Your task to perform on an android device: open app "Walmart Shopping & Grocery" (install if not already installed), go to login, and select forgot password Image 0: 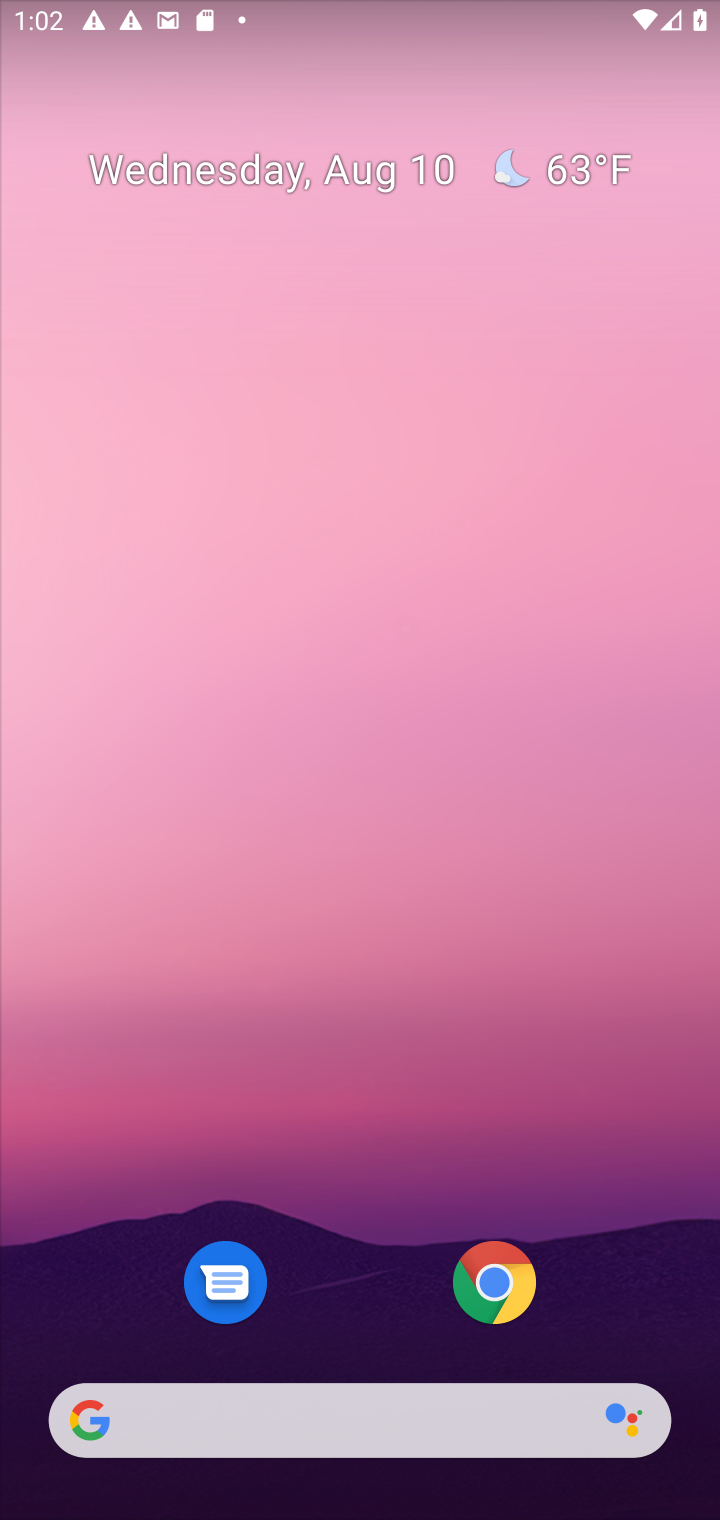
Step 0: drag from (305, 1312) to (259, 422)
Your task to perform on an android device: open app "Walmart Shopping & Grocery" (install if not already installed), go to login, and select forgot password Image 1: 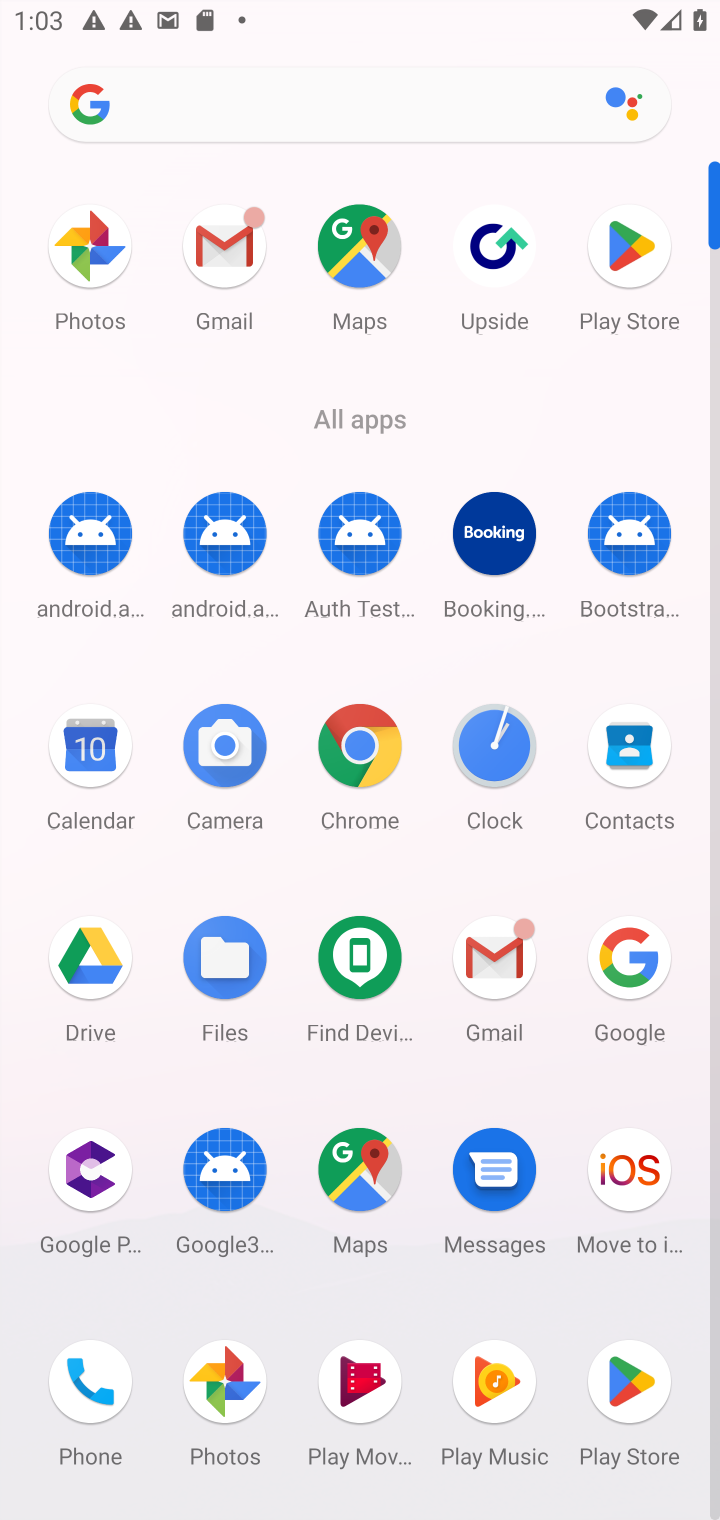
Step 1: click (655, 237)
Your task to perform on an android device: open app "Walmart Shopping & Grocery" (install if not already installed), go to login, and select forgot password Image 2: 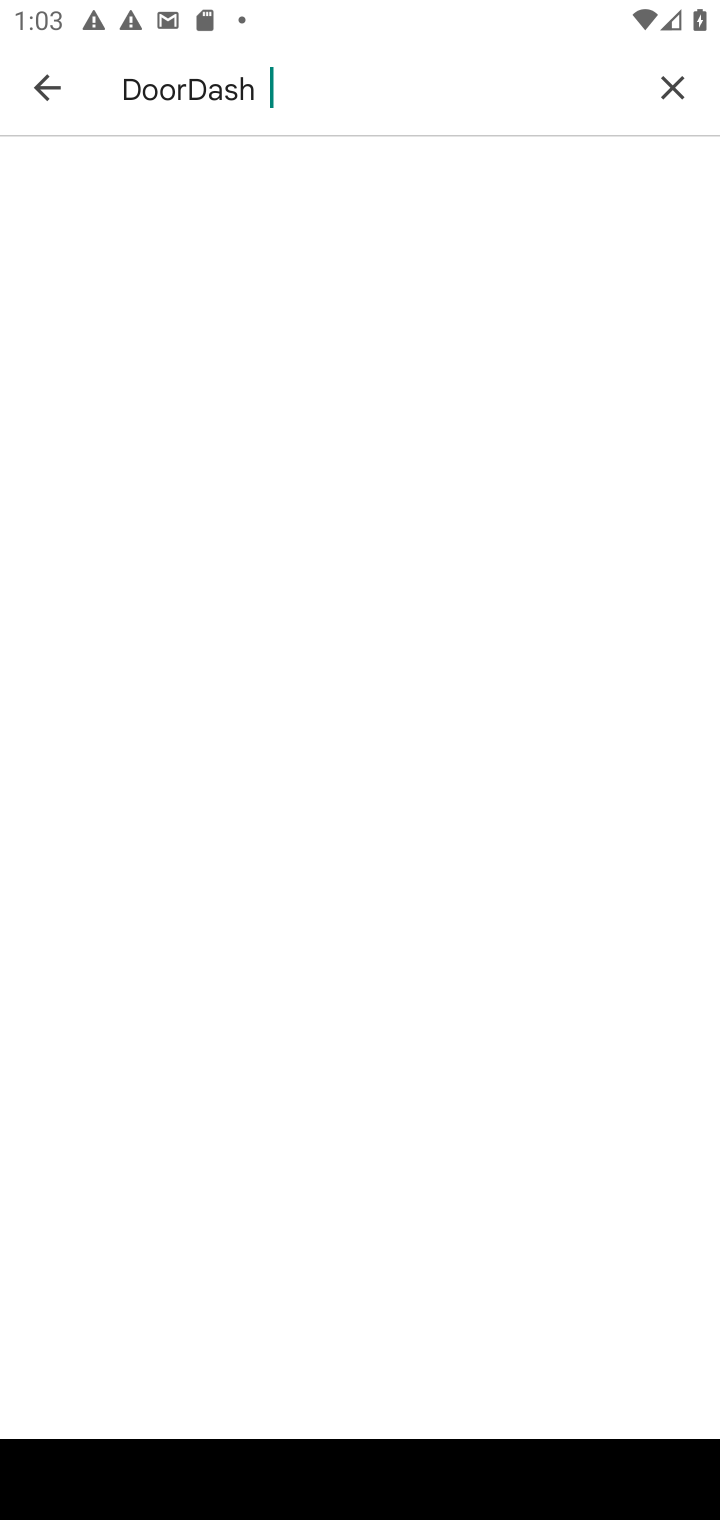
Step 2: click (647, 237)
Your task to perform on an android device: open app "Walmart Shopping & Grocery" (install if not already installed), go to login, and select forgot password Image 3: 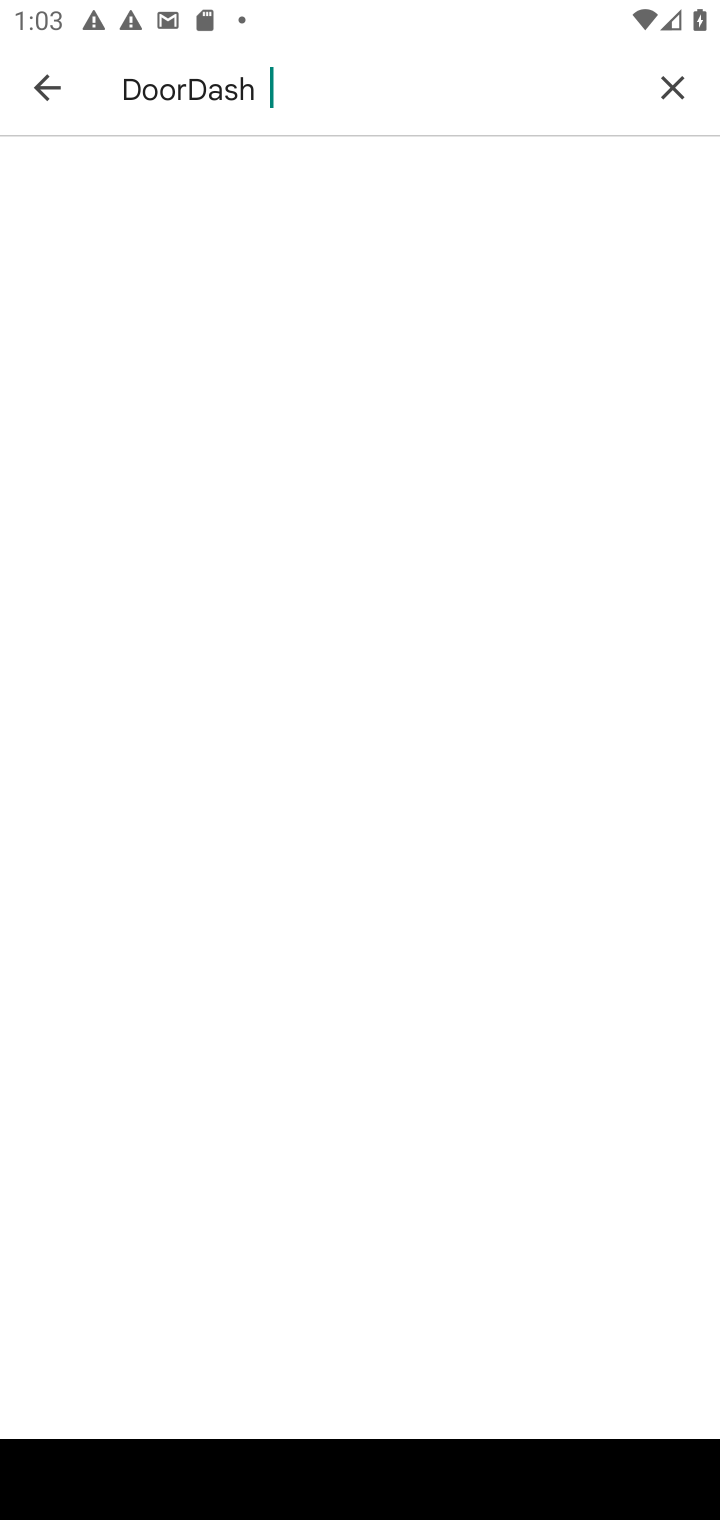
Step 3: click (647, 89)
Your task to perform on an android device: open app "Walmart Shopping & Grocery" (install if not already installed), go to login, and select forgot password Image 4: 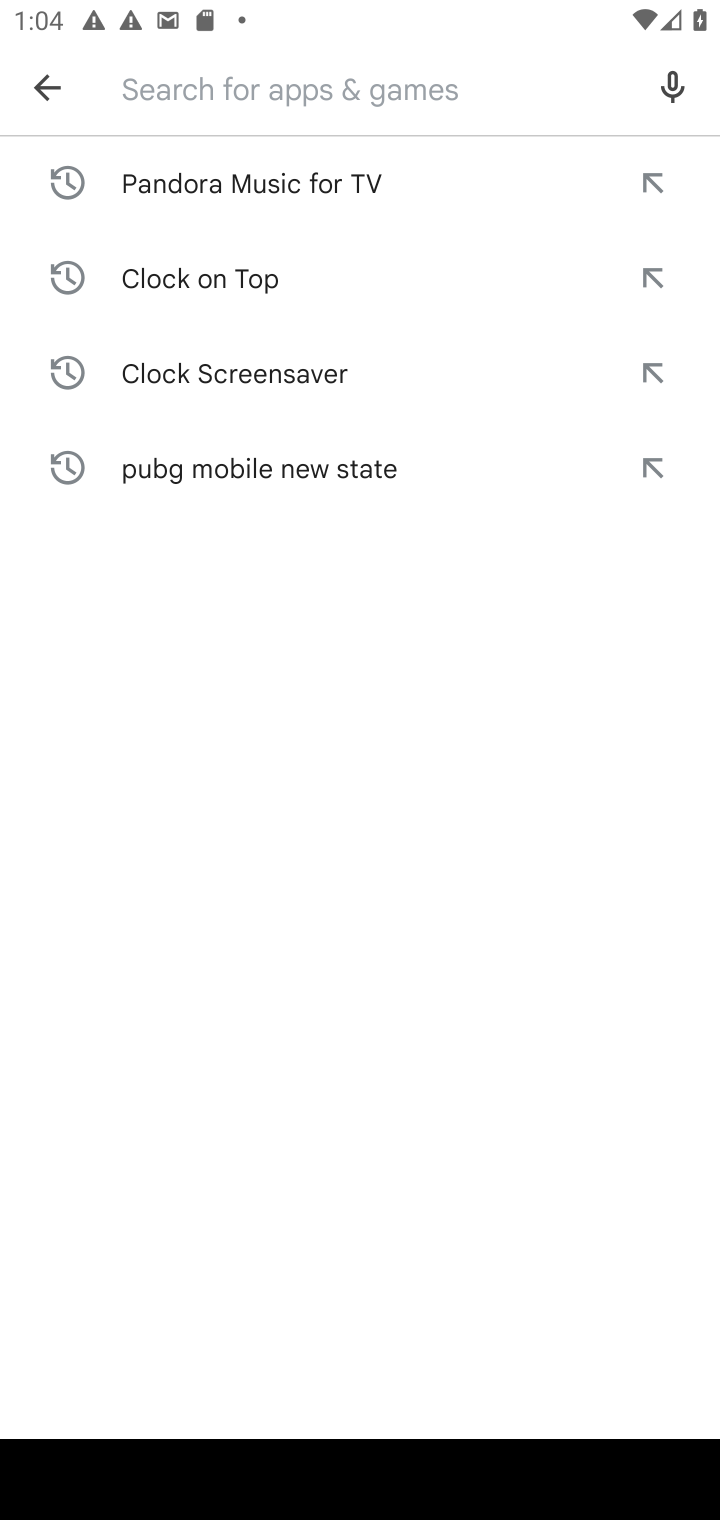
Step 4: click (362, 90)
Your task to perform on an android device: open app "Walmart Shopping & Grocery" (install if not already installed), go to login, and select forgot password Image 5: 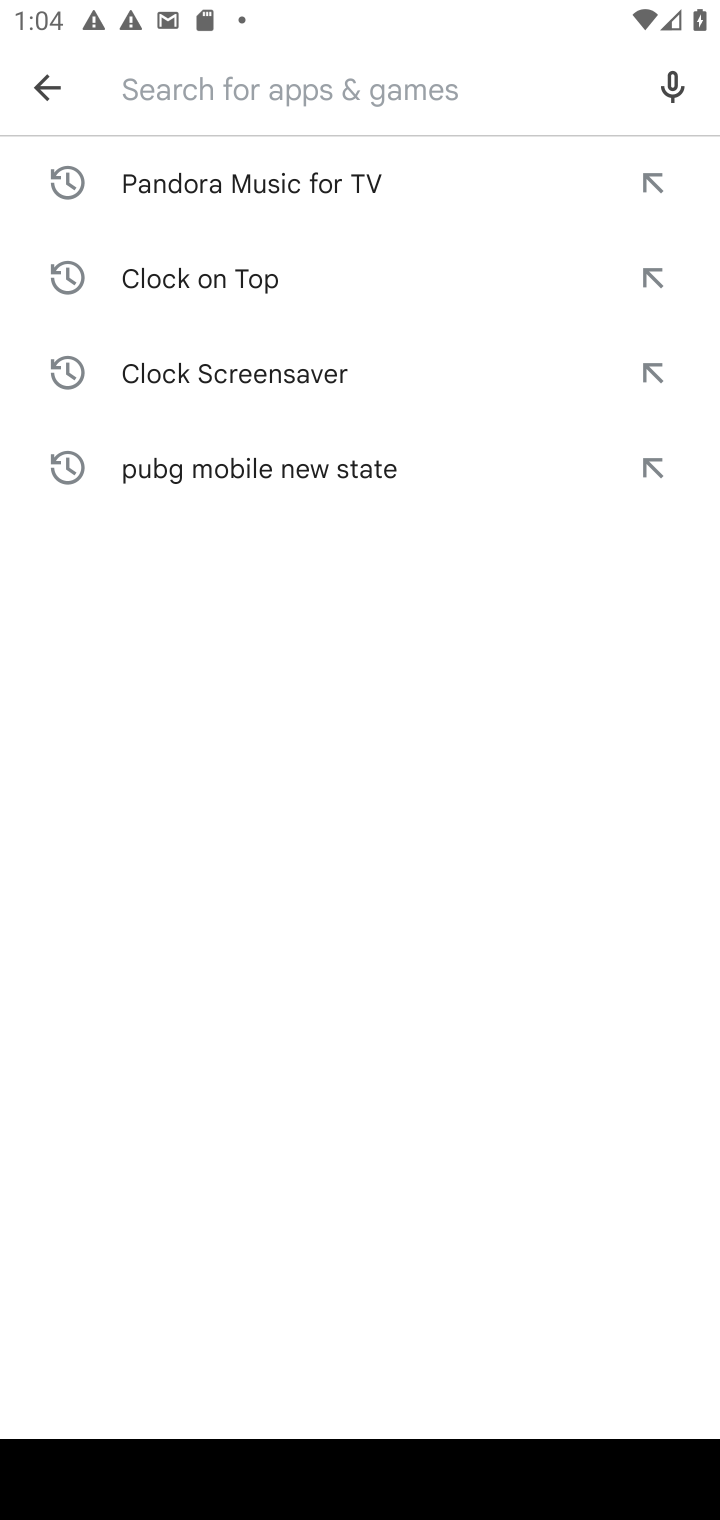
Step 5: type "Walmart Shopping & Grocery "
Your task to perform on an android device: open app "Walmart Shopping & Grocery" (install if not already installed), go to login, and select forgot password Image 6: 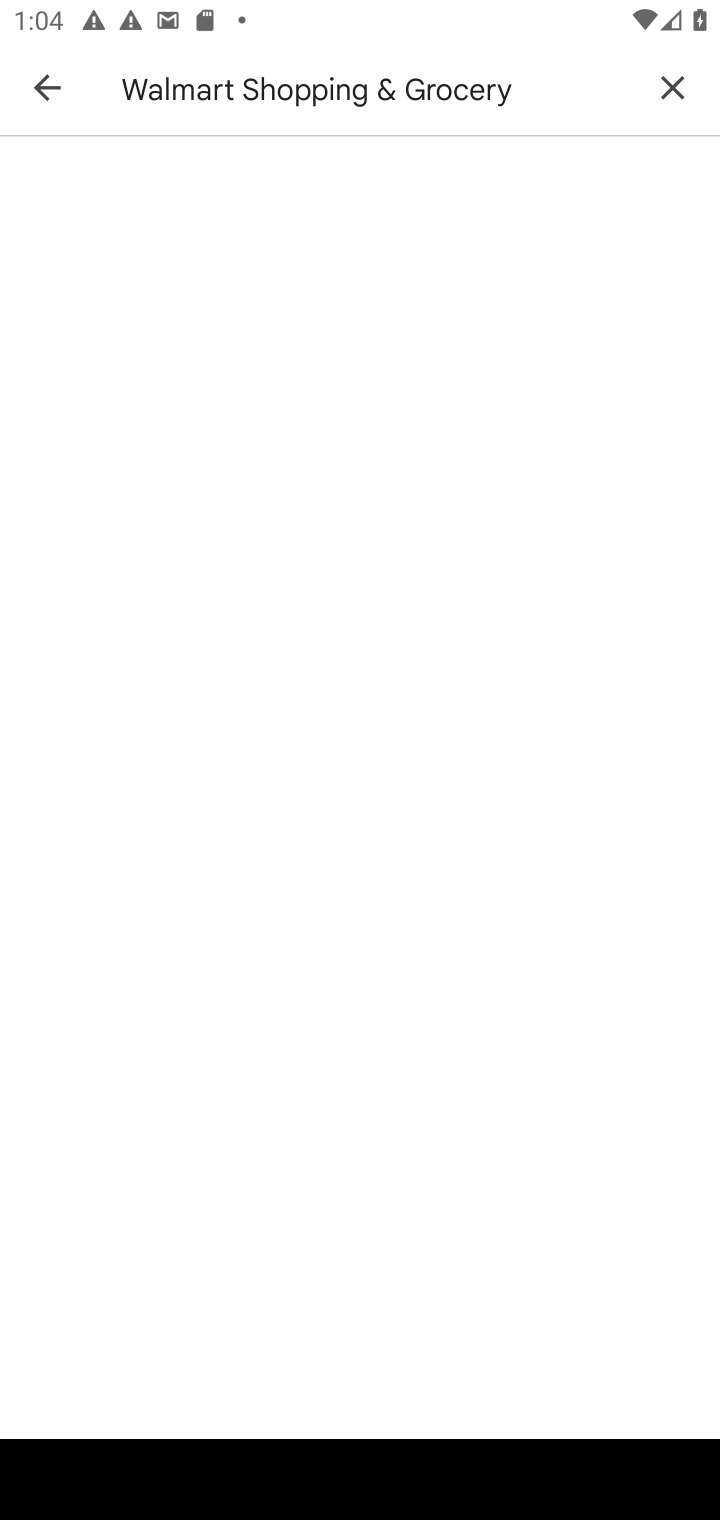
Step 6: click (60, 117)
Your task to perform on an android device: open app "Walmart Shopping & Grocery" (install if not already installed), go to login, and select forgot password Image 7: 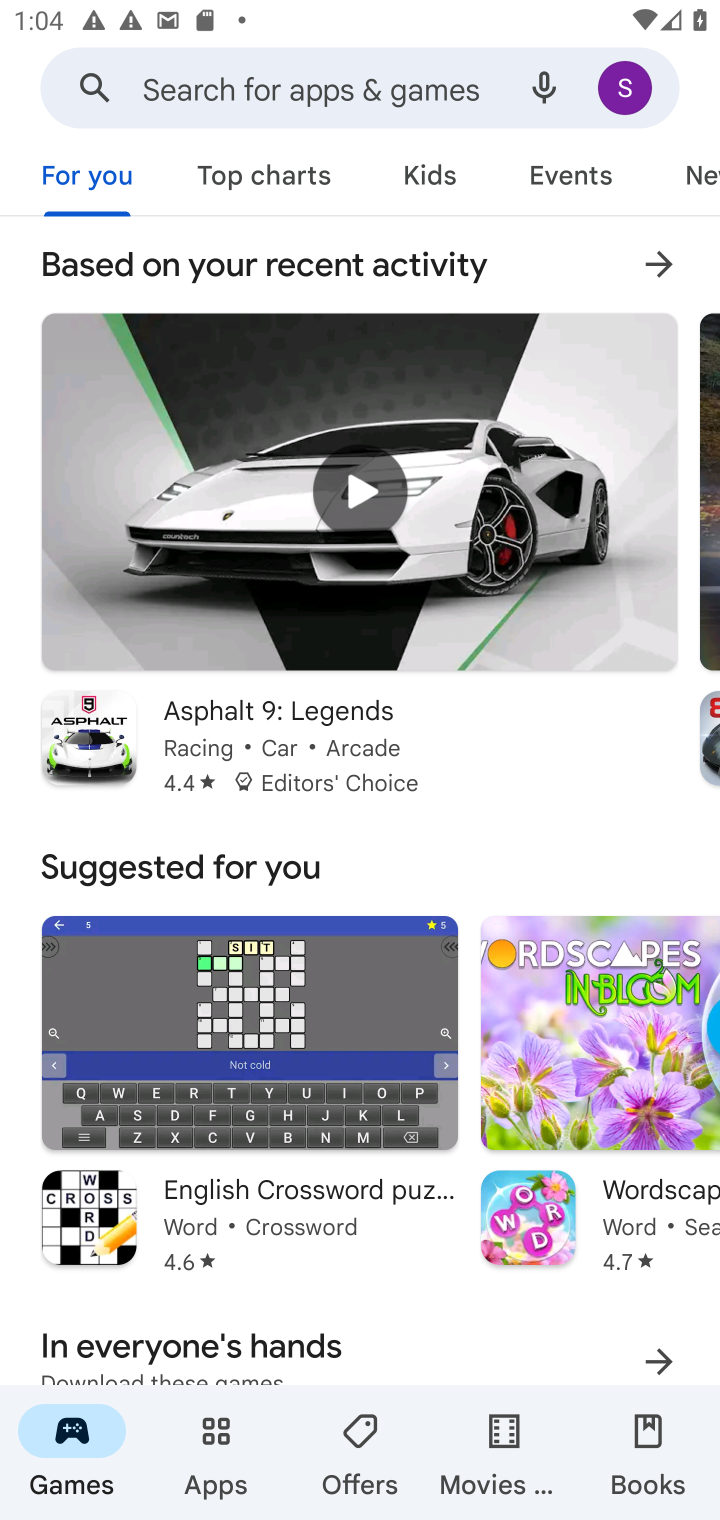
Step 7: click (218, 1405)
Your task to perform on an android device: open app "Walmart Shopping & Grocery" (install if not already installed), go to login, and select forgot password Image 8: 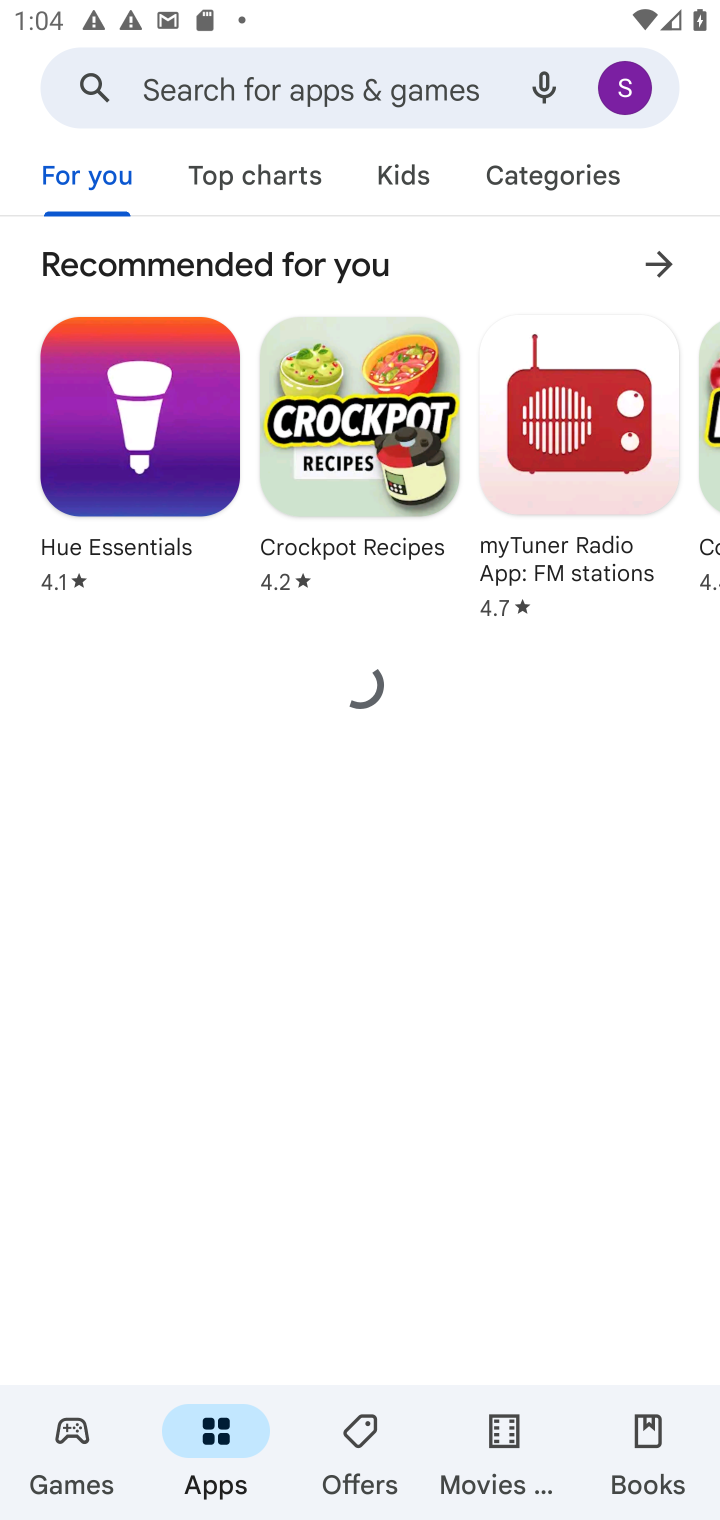
Step 8: click (336, 85)
Your task to perform on an android device: open app "Walmart Shopping & Grocery" (install if not already installed), go to login, and select forgot password Image 9: 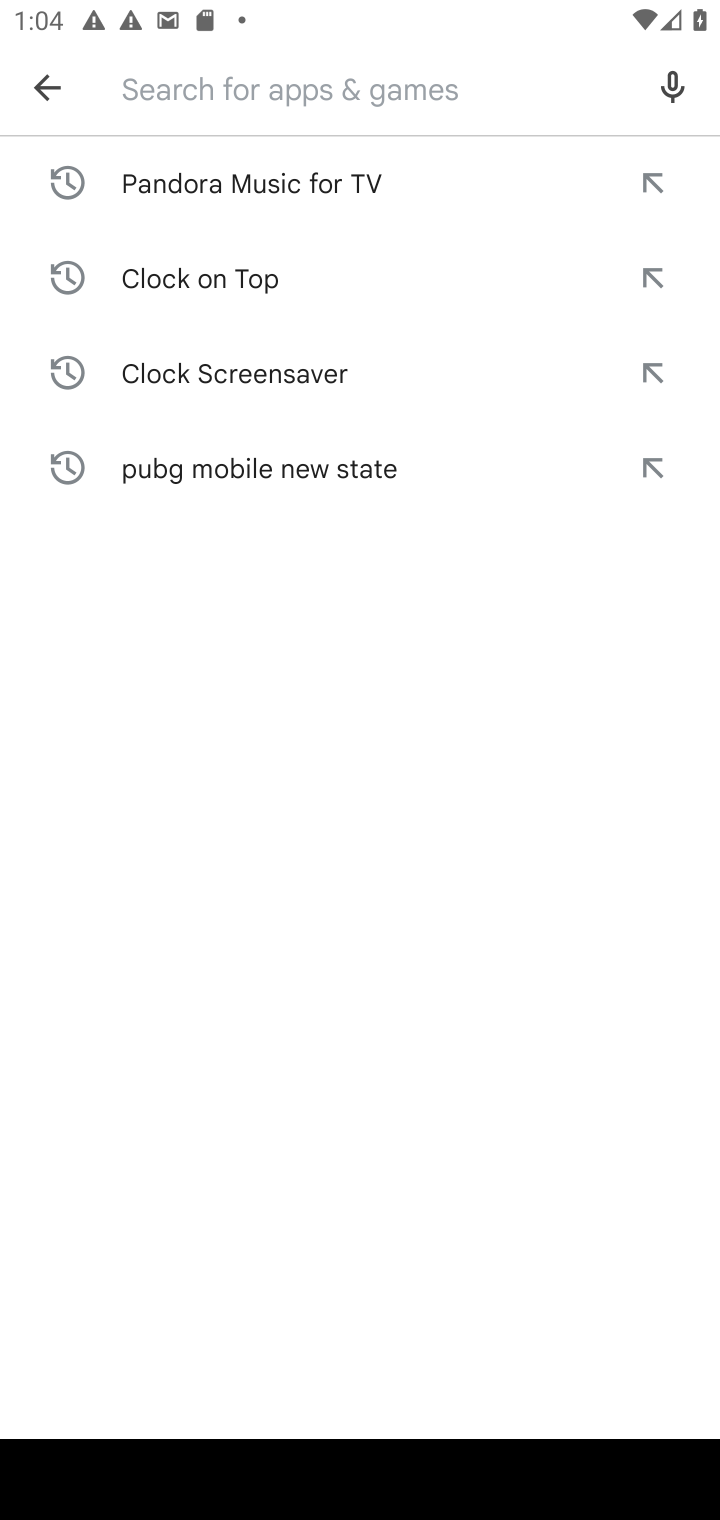
Step 9: type "Walmart Shopping & Grocery "
Your task to perform on an android device: open app "Walmart Shopping & Grocery" (install if not already installed), go to login, and select forgot password Image 10: 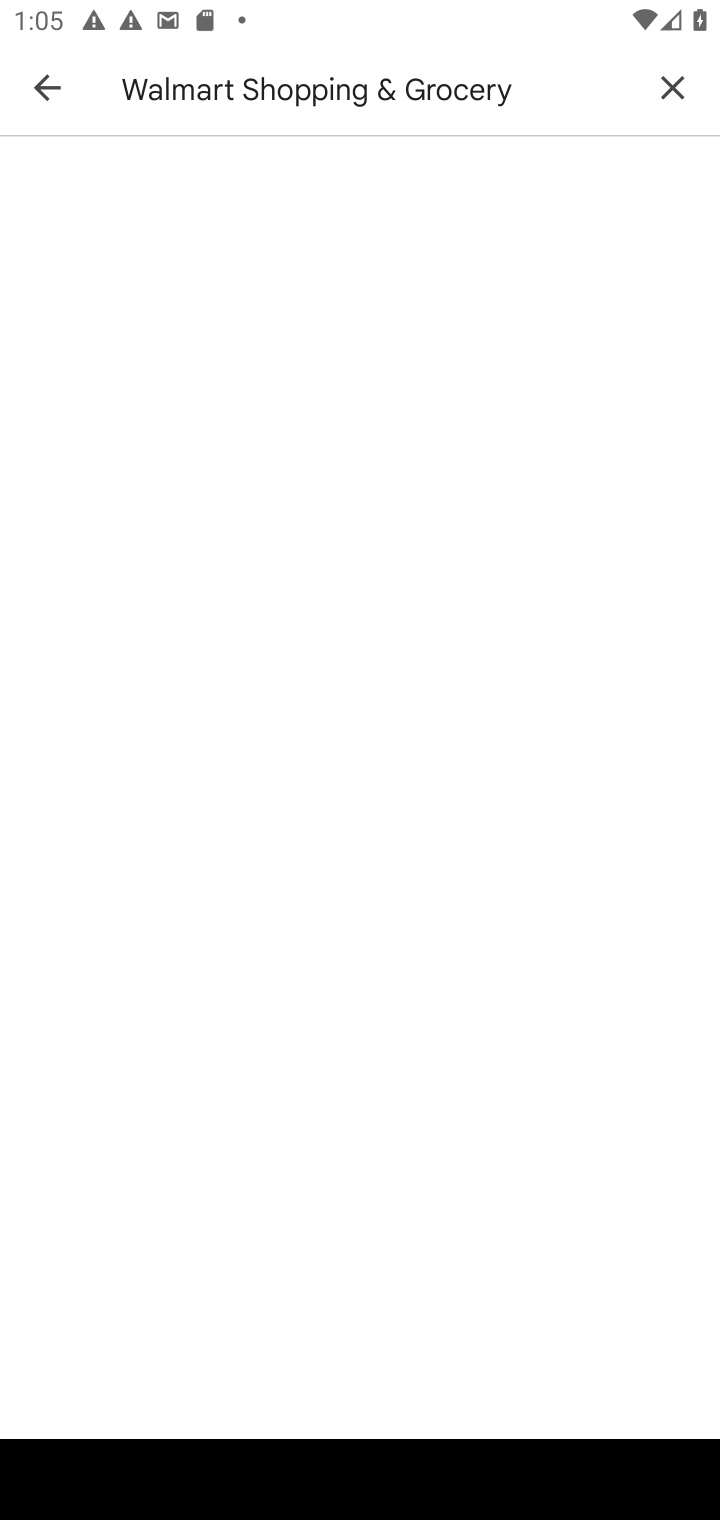
Step 10: click (79, 93)
Your task to perform on an android device: open app "Walmart Shopping & Grocery" (install if not already installed), go to login, and select forgot password Image 11: 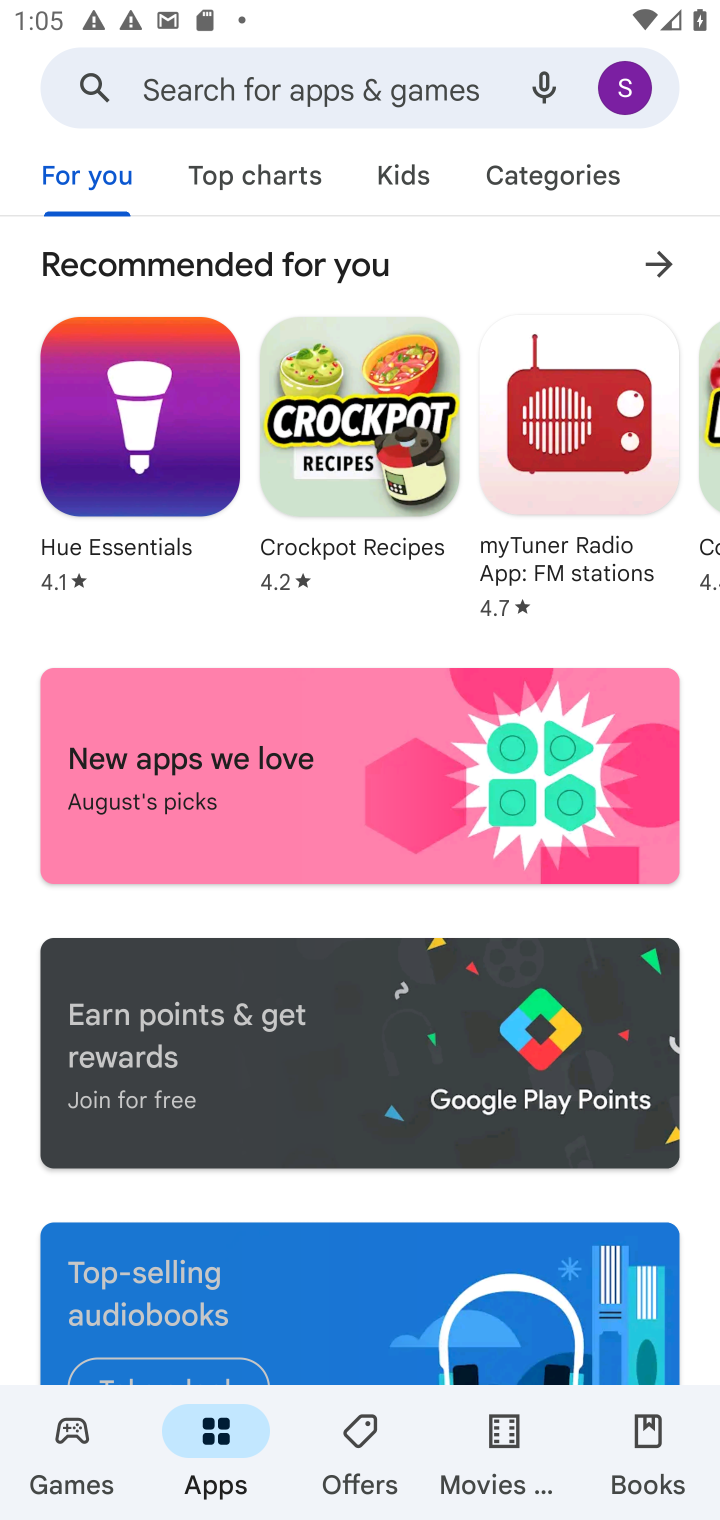
Step 11: press home button
Your task to perform on an android device: open app "Walmart Shopping & Grocery" (install if not already installed), go to login, and select forgot password Image 12: 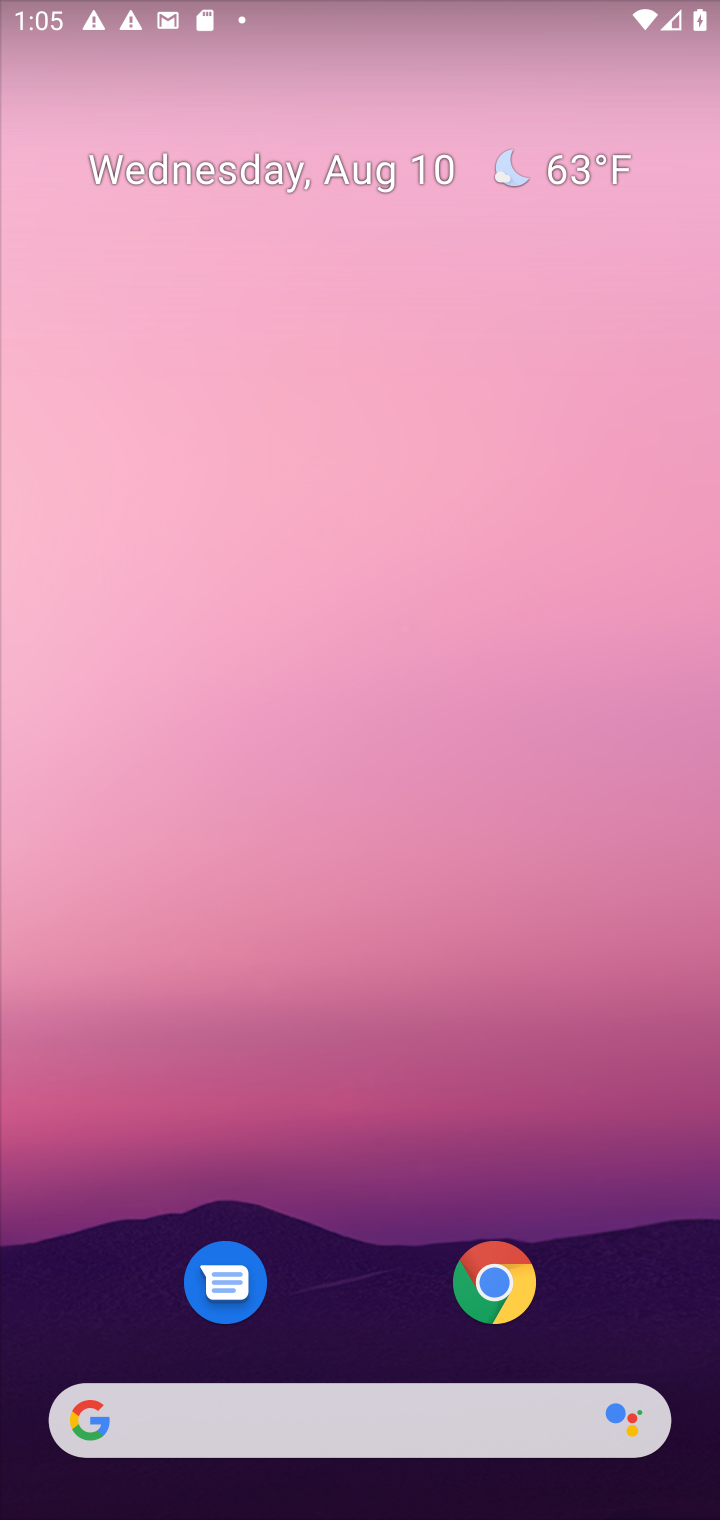
Step 12: drag from (322, 1213) to (468, 265)
Your task to perform on an android device: open app "Walmart Shopping & Grocery" (install if not already installed), go to login, and select forgot password Image 13: 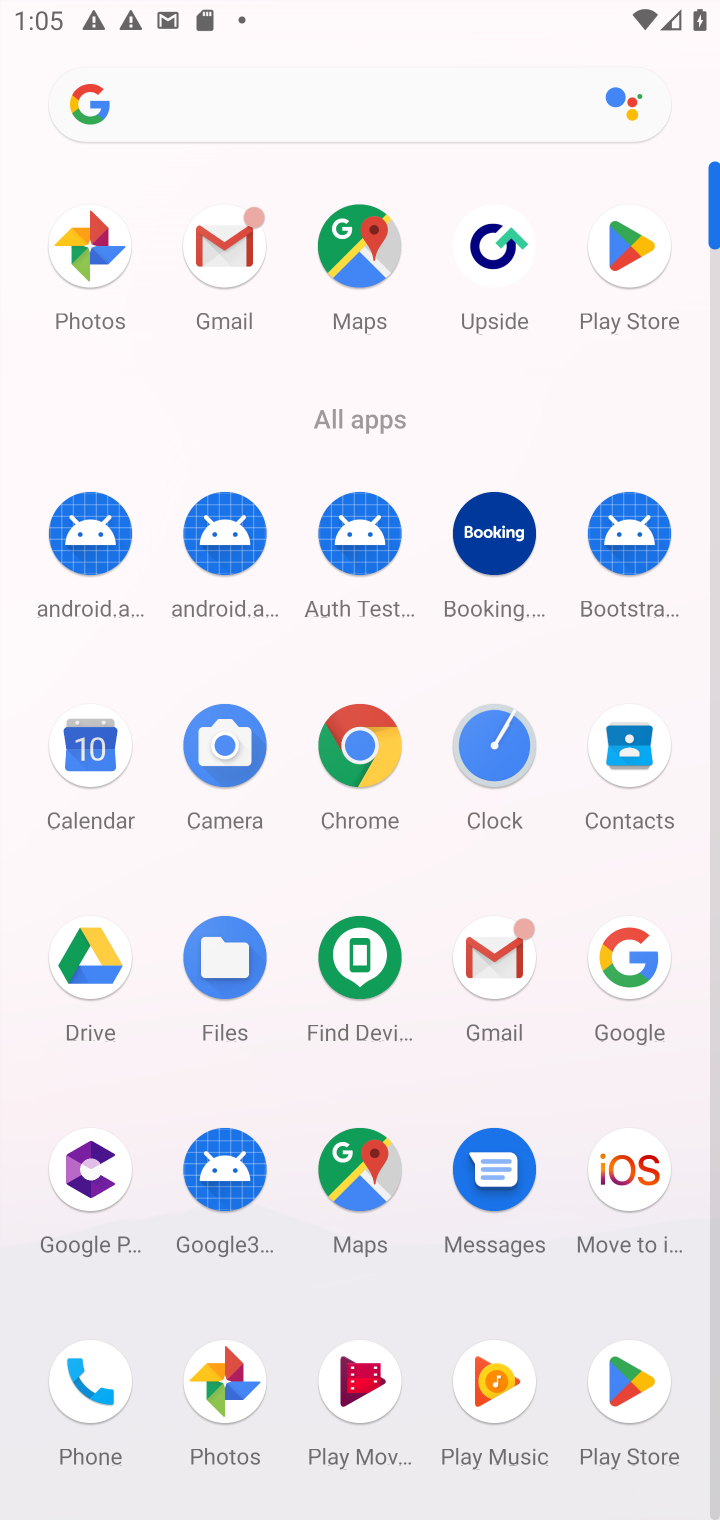
Step 13: click (656, 234)
Your task to perform on an android device: open app "Walmart Shopping & Grocery" (install if not already installed), go to login, and select forgot password Image 14: 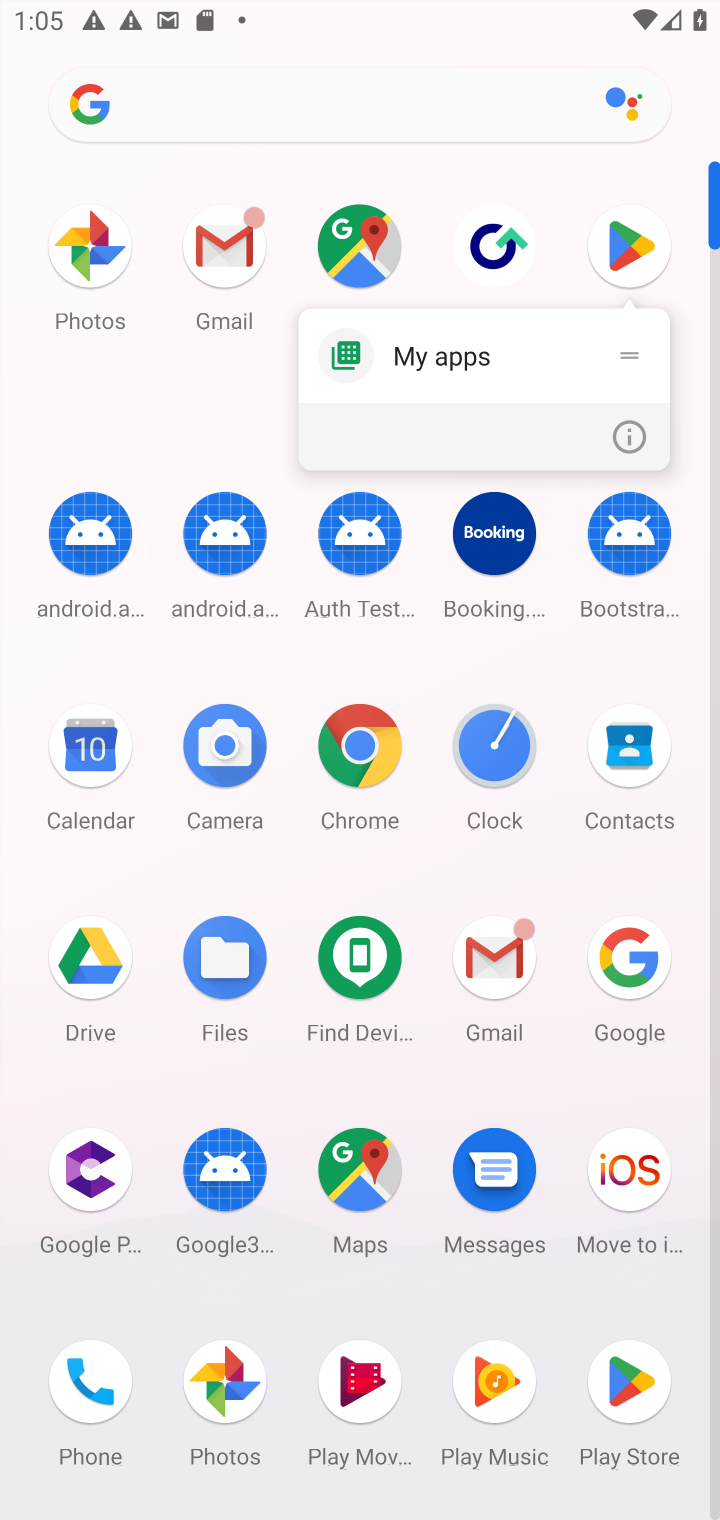
Step 14: click (613, 235)
Your task to perform on an android device: open app "Walmart Shopping & Grocery" (install if not already installed), go to login, and select forgot password Image 15: 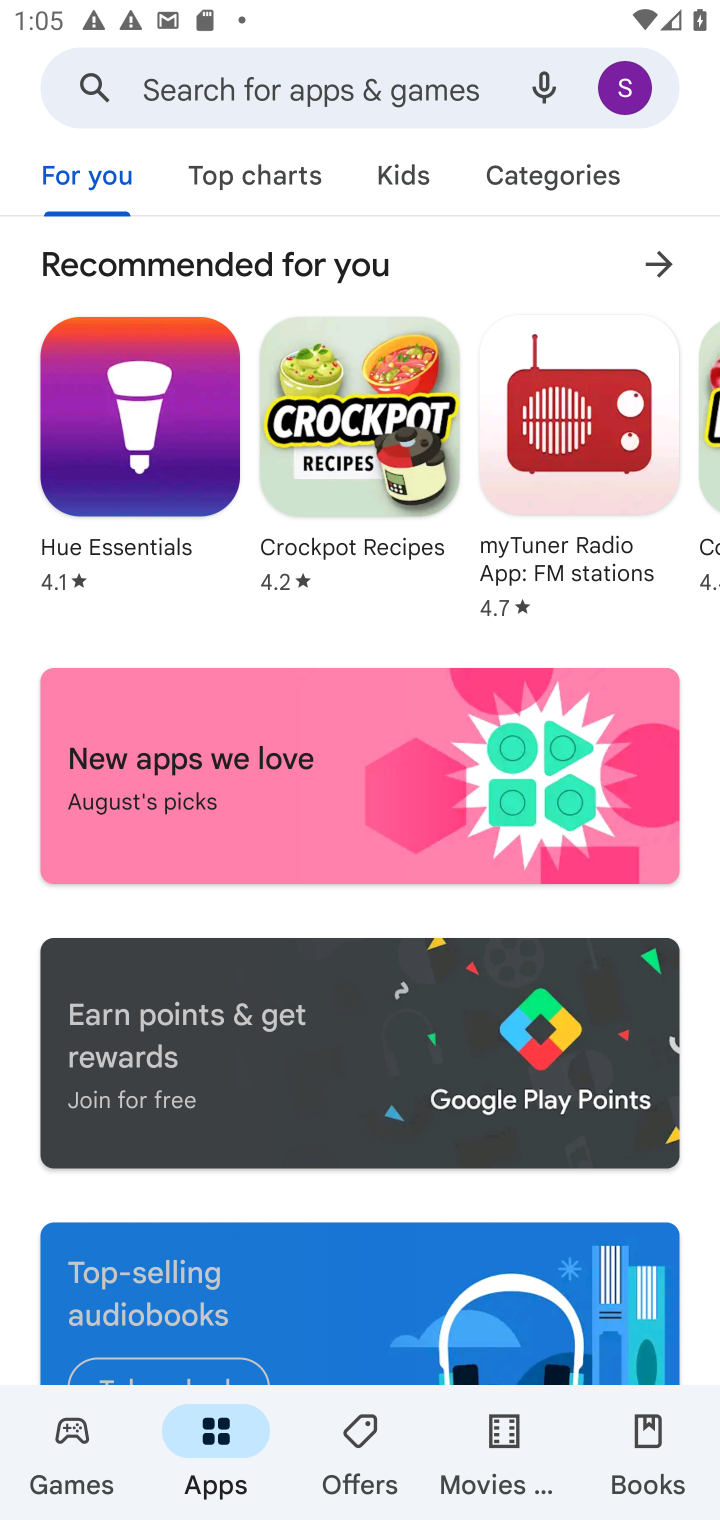
Step 15: click (214, 77)
Your task to perform on an android device: open app "Walmart Shopping & Grocery" (install if not already installed), go to login, and select forgot password Image 16: 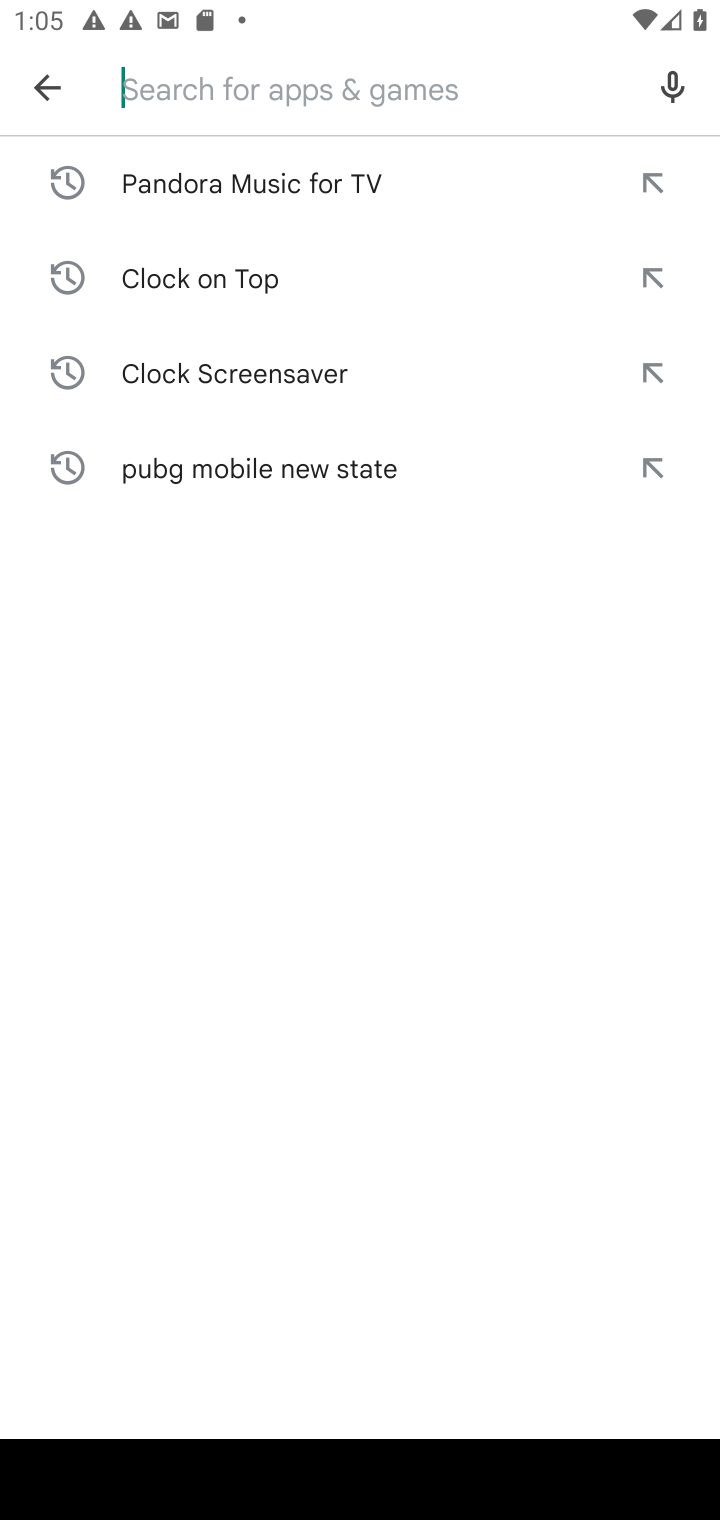
Step 16: click (79, 74)
Your task to perform on an android device: open app "Walmart Shopping & Grocery" (install if not already installed), go to login, and select forgot password Image 17: 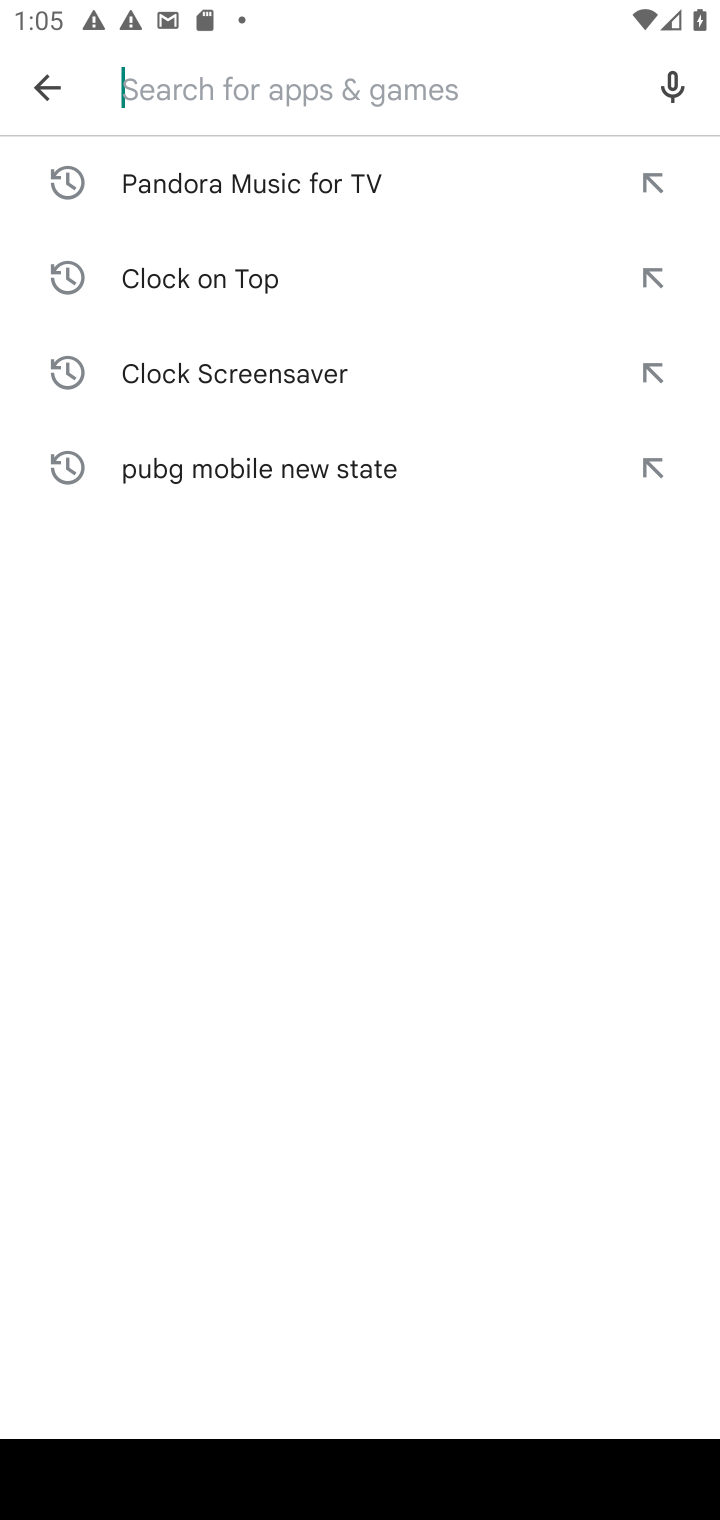
Step 17: click (35, 72)
Your task to perform on an android device: open app "Walmart Shopping & Grocery" (install if not already installed), go to login, and select forgot password Image 18: 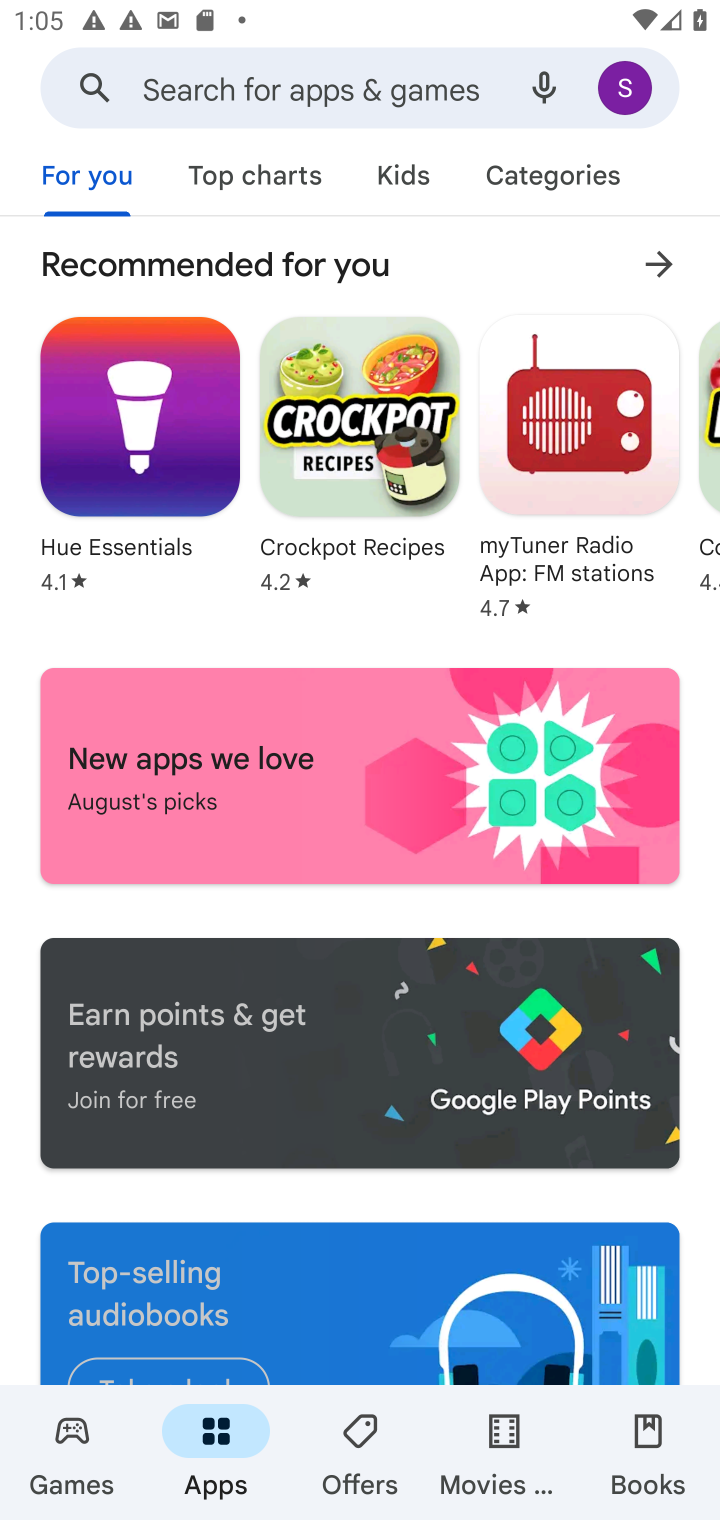
Step 18: click (199, 172)
Your task to perform on an android device: open app "Walmart Shopping & Grocery" (install if not already installed), go to login, and select forgot password Image 19: 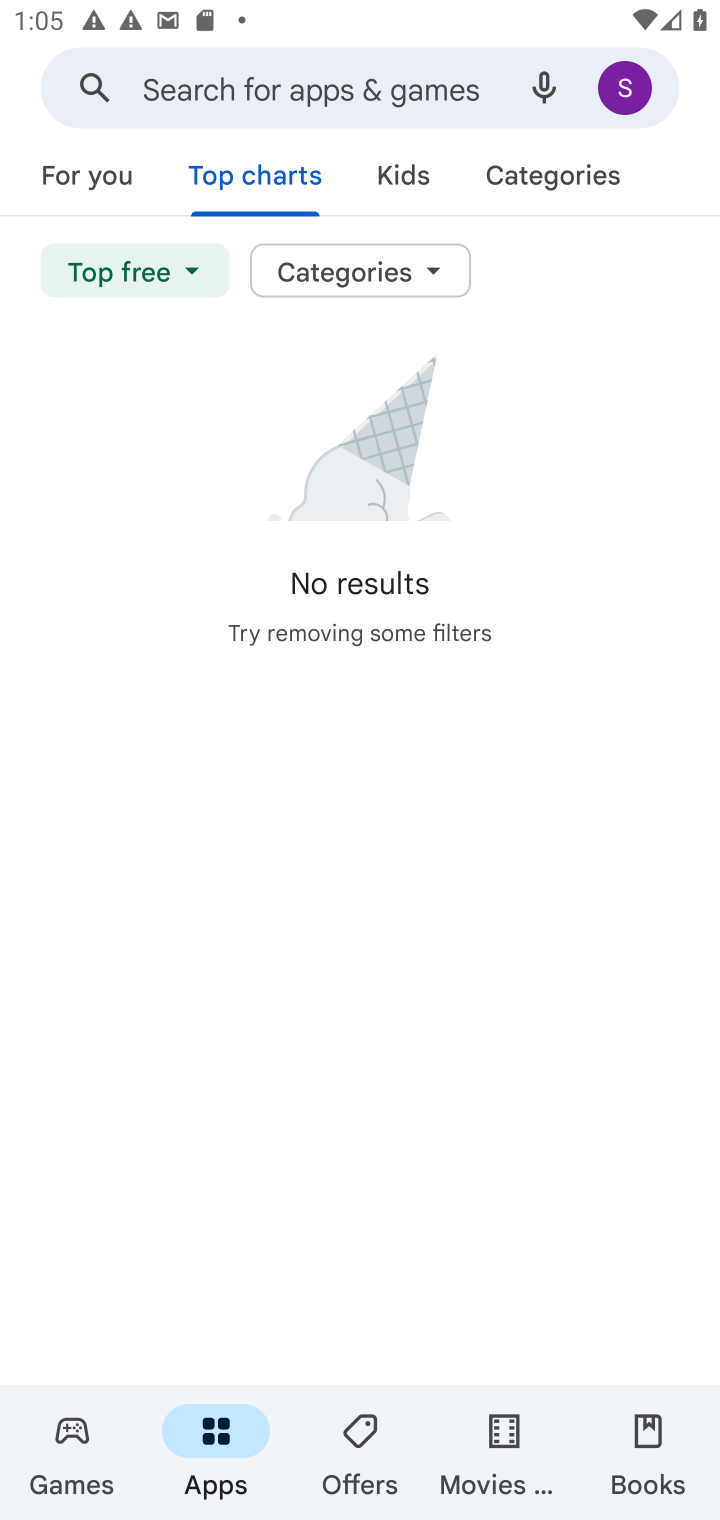
Step 19: click (411, 74)
Your task to perform on an android device: open app "Walmart Shopping & Grocery" (install if not already installed), go to login, and select forgot password Image 20: 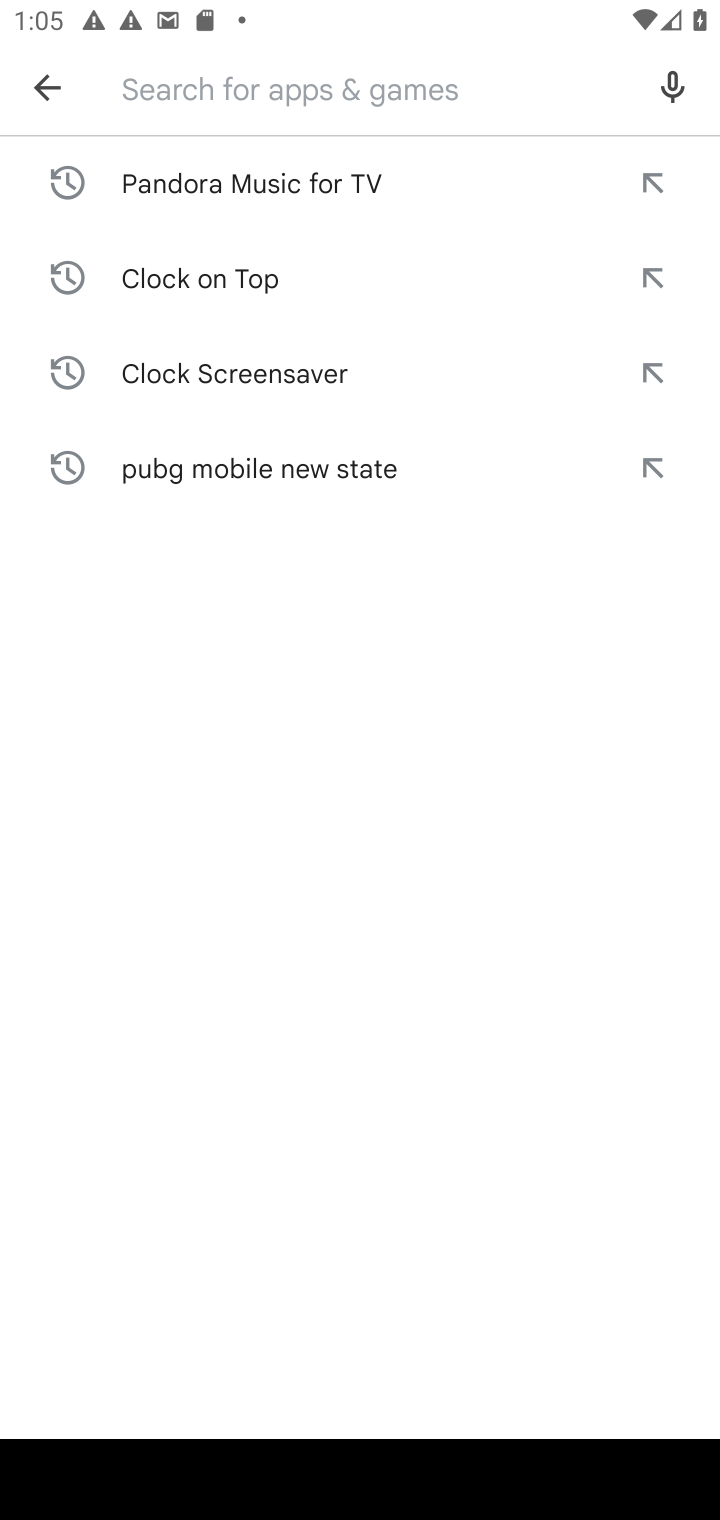
Step 20: type "Walmart Shopping & Grocer "
Your task to perform on an android device: open app "Walmart Shopping & Grocery" (install if not already installed), go to login, and select forgot password Image 21: 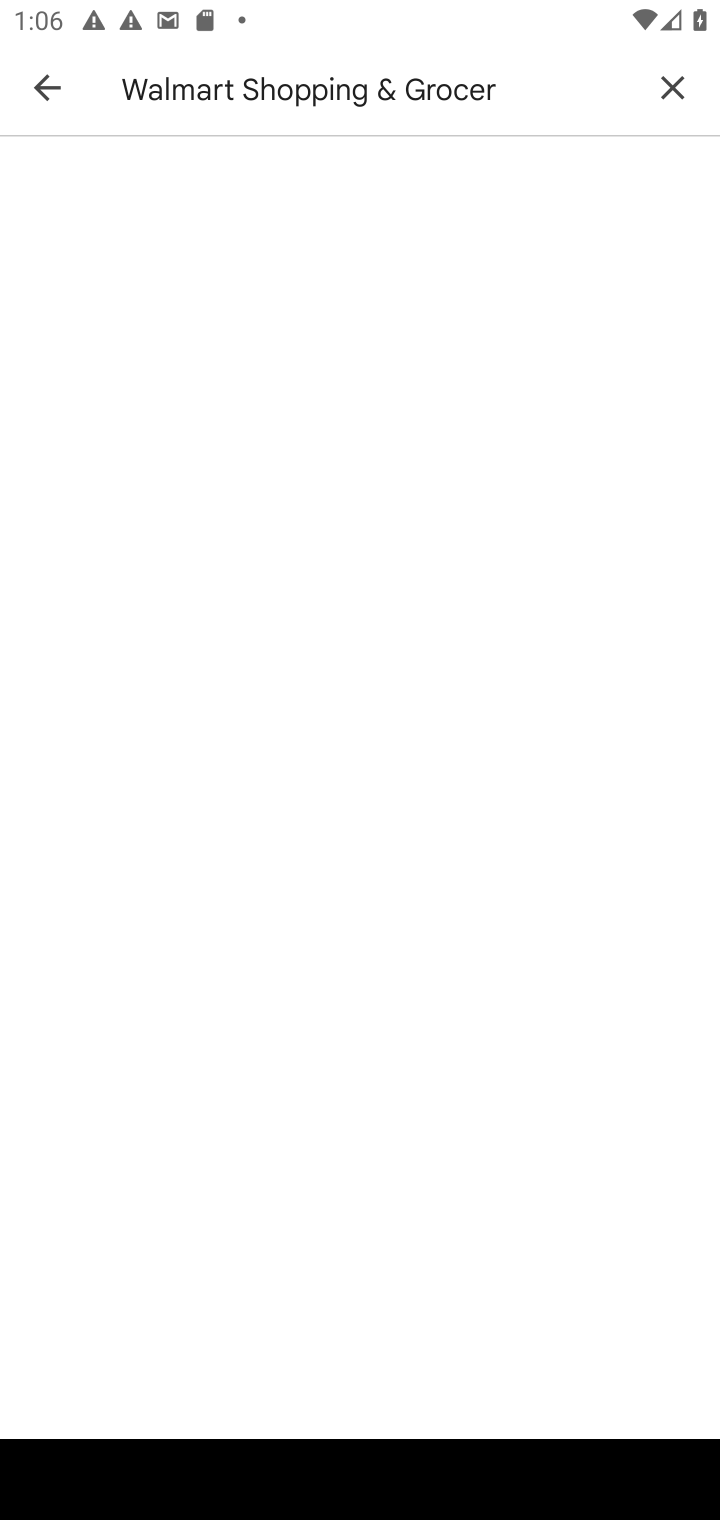
Step 21: task complete